Your task to perform on an android device: What's the latest video from GameSpot Reviews? Image 0: 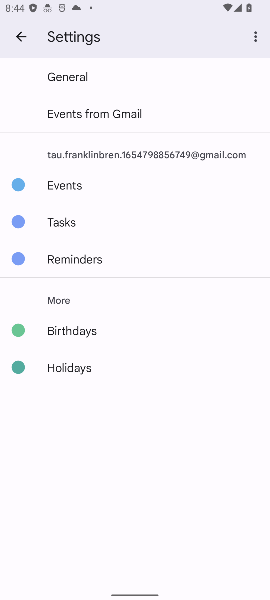
Step 0: press home button
Your task to perform on an android device: What's the latest video from GameSpot Reviews? Image 1: 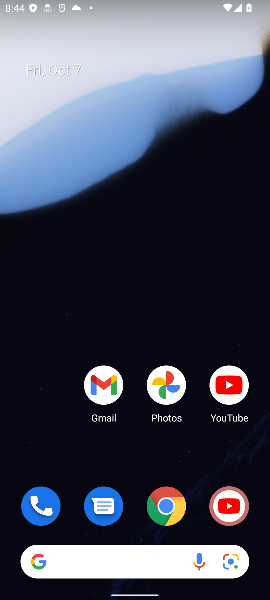
Step 1: click (225, 392)
Your task to perform on an android device: What's the latest video from GameSpot Reviews? Image 2: 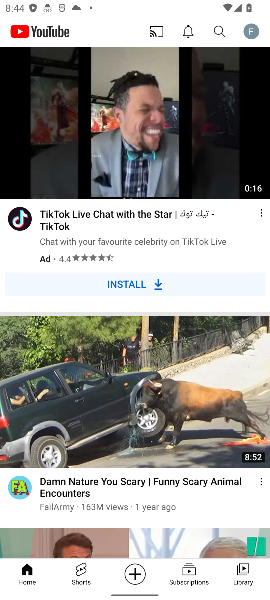
Step 2: click (218, 30)
Your task to perform on an android device: What's the latest video from GameSpot Reviews? Image 3: 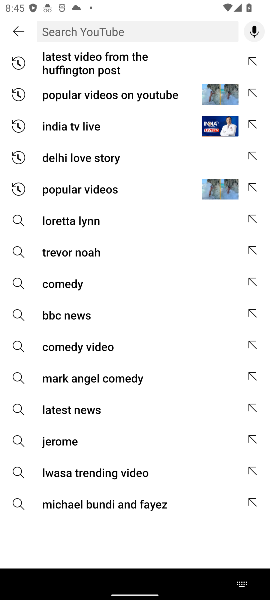
Step 3: type "latest video from GameSpot Reviews"
Your task to perform on an android device: What's the latest video from GameSpot Reviews? Image 4: 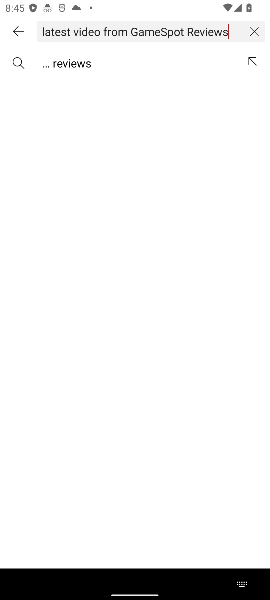
Step 4: press enter
Your task to perform on an android device: What's the latest video from GameSpot Reviews? Image 5: 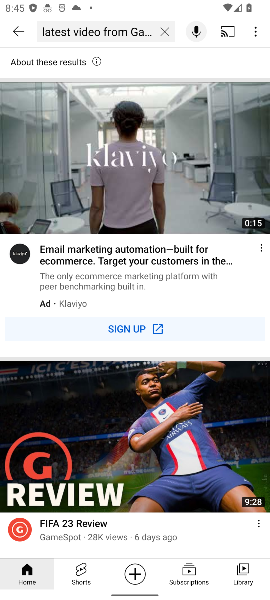
Step 5: drag from (110, 454) to (209, 155)
Your task to perform on an android device: What's the latest video from GameSpot Reviews? Image 6: 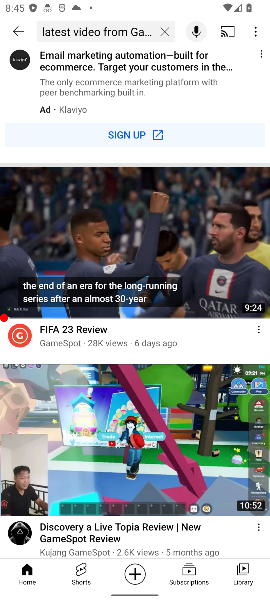
Step 6: drag from (123, 494) to (187, 400)
Your task to perform on an android device: What's the latest video from GameSpot Reviews? Image 7: 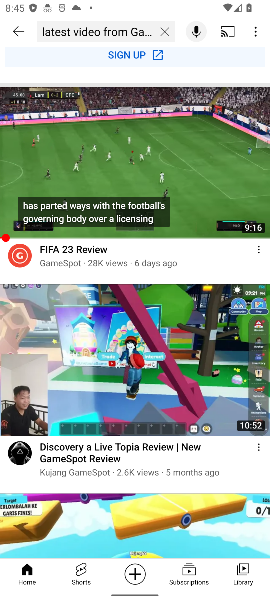
Step 7: click (136, 139)
Your task to perform on an android device: What's the latest video from GameSpot Reviews? Image 8: 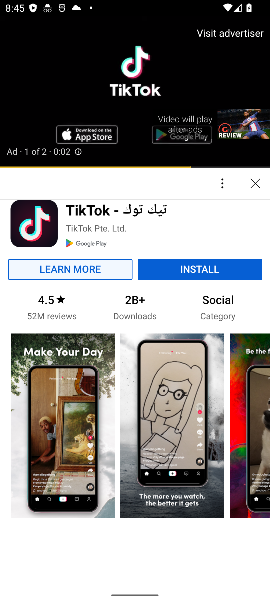
Step 8: click (254, 180)
Your task to perform on an android device: What's the latest video from GameSpot Reviews? Image 9: 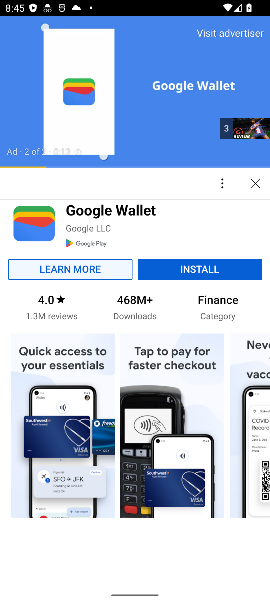
Step 9: click (252, 184)
Your task to perform on an android device: What's the latest video from GameSpot Reviews? Image 10: 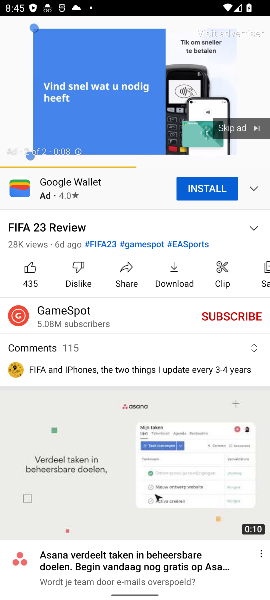
Step 10: drag from (180, 175) to (178, 51)
Your task to perform on an android device: What's the latest video from GameSpot Reviews? Image 11: 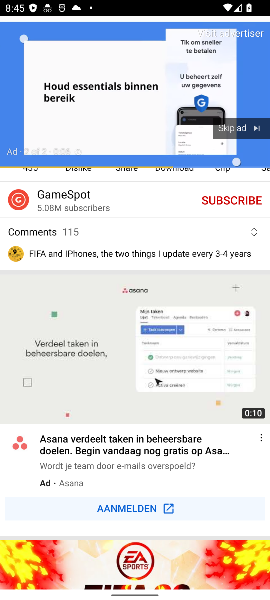
Step 11: click (233, 128)
Your task to perform on an android device: What's the latest video from GameSpot Reviews? Image 12: 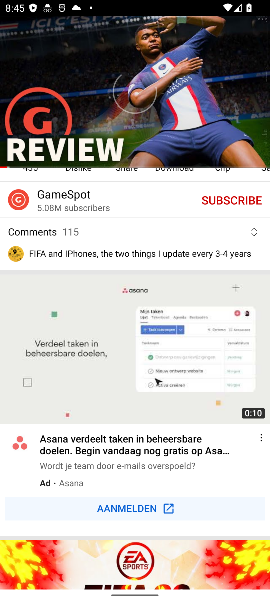
Step 12: task complete